Your task to perform on an android device: What's the weather? Image 0: 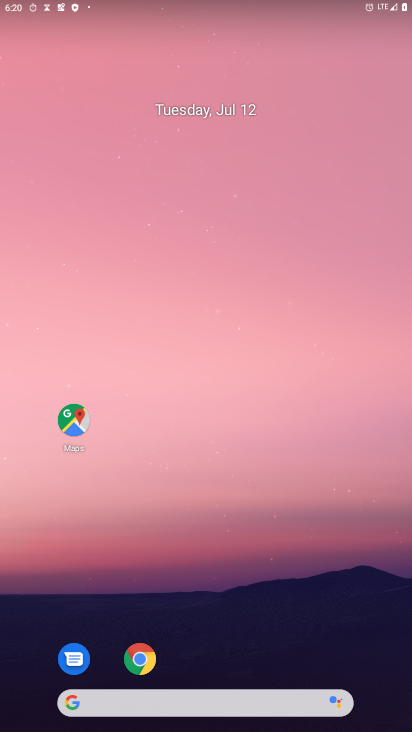
Step 0: click (189, 708)
Your task to perform on an android device: What's the weather? Image 1: 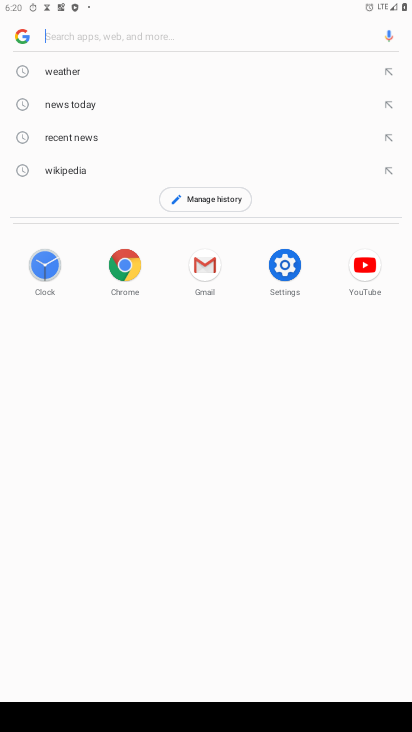
Step 1: click (63, 76)
Your task to perform on an android device: What's the weather? Image 2: 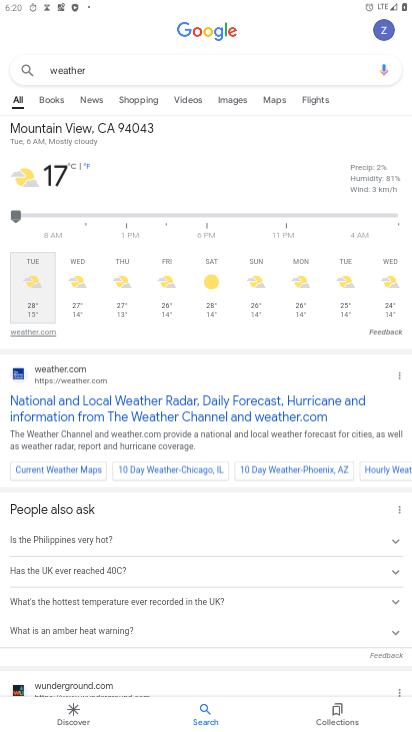
Step 2: task complete